Your task to perform on an android device: toggle sleep mode Image 0: 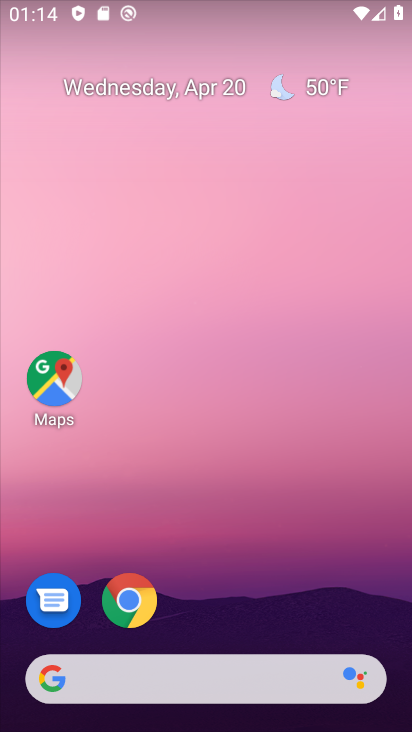
Step 0: drag from (237, 637) to (234, 125)
Your task to perform on an android device: toggle sleep mode Image 1: 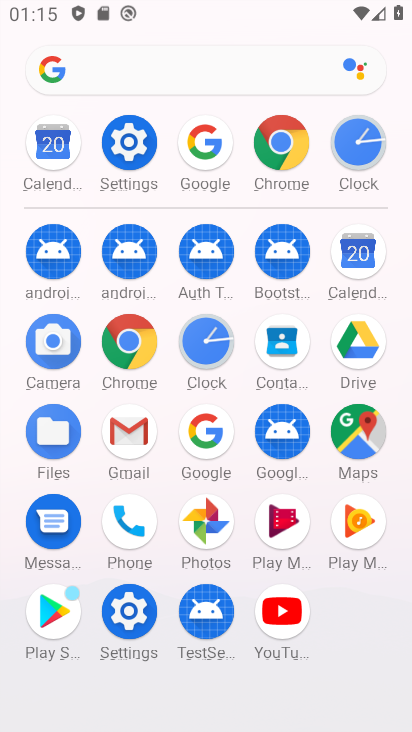
Step 1: click (130, 139)
Your task to perform on an android device: toggle sleep mode Image 2: 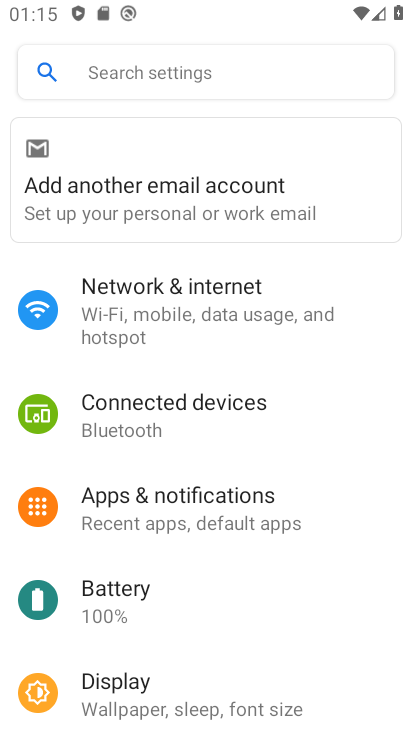
Step 2: drag from (181, 458) to (179, 213)
Your task to perform on an android device: toggle sleep mode Image 3: 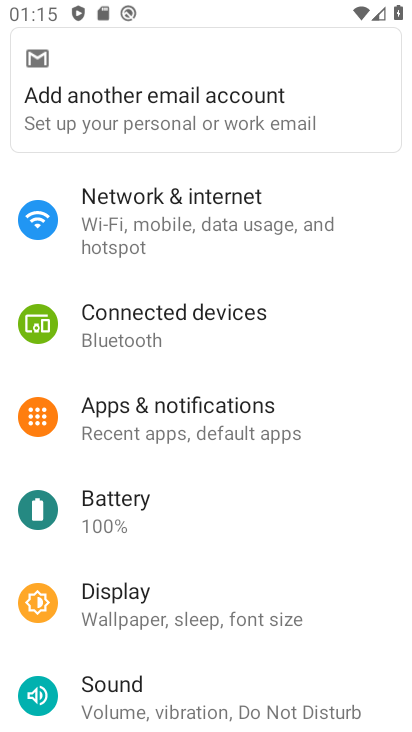
Step 3: drag from (182, 665) to (276, 229)
Your task to perform on an android device: toggle sleep mode Image 4: 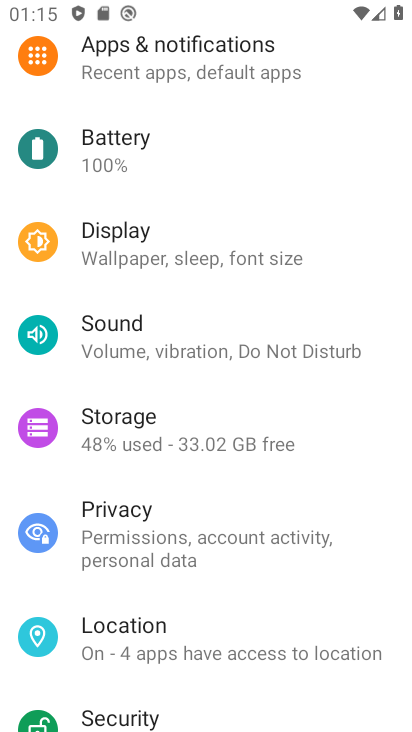
Step 4: click (258, 244)
Your task to perform on an android device: toggle sleep mode Image 5: 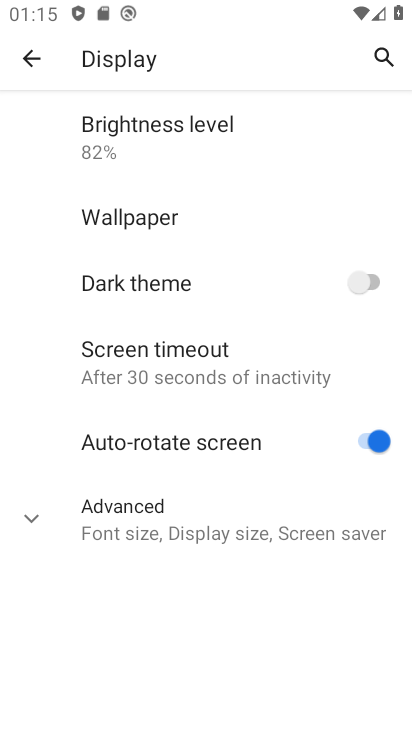
Step 5: click (188, 373)
Your task to perform on an android device: toggle sleep mode Image 6: 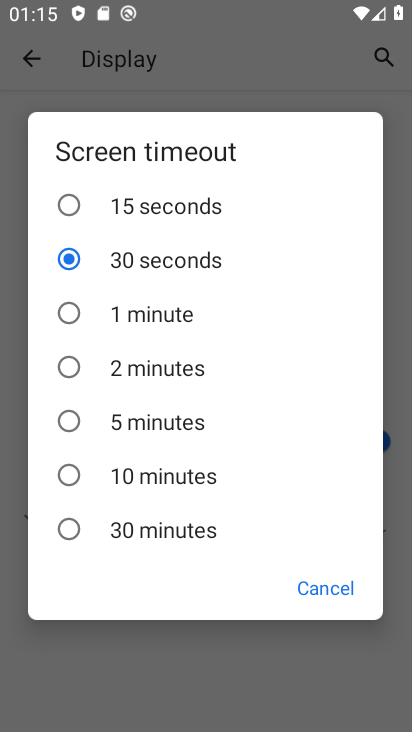
Step 6: click (123, 188)
Your task to perform on an android device: toggle sleep mode Image 7: 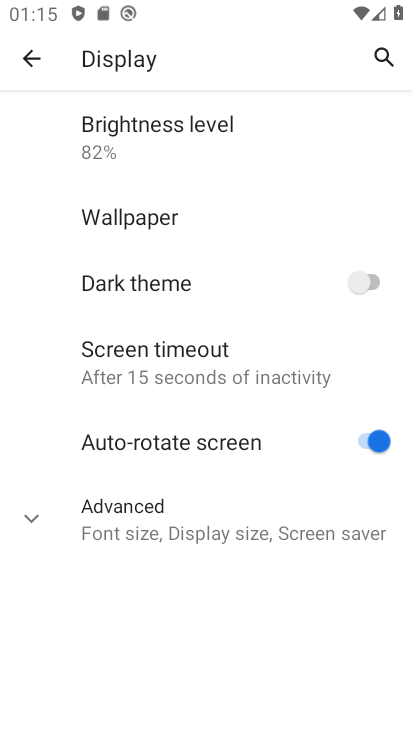
Step 7: task complete